Your task to perform on an android device: toggle pop-ups in chrome Image 0: 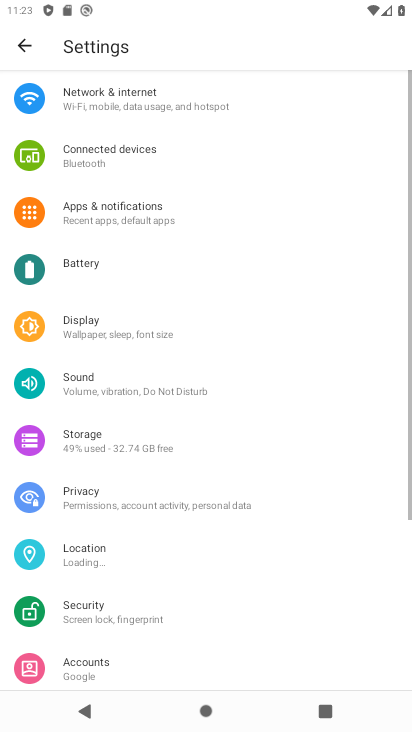
Step 0: press home button
Your task to perform on an android device: toggle pop-ups in chrome Image 1: 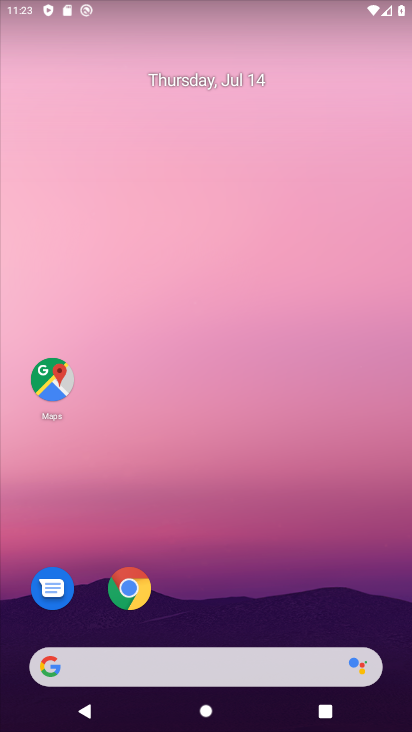
Step 1: drag from (247, 614) to (209, 223)
Your task to perform on an android device: toggle pop-ups in chrome Image 2: 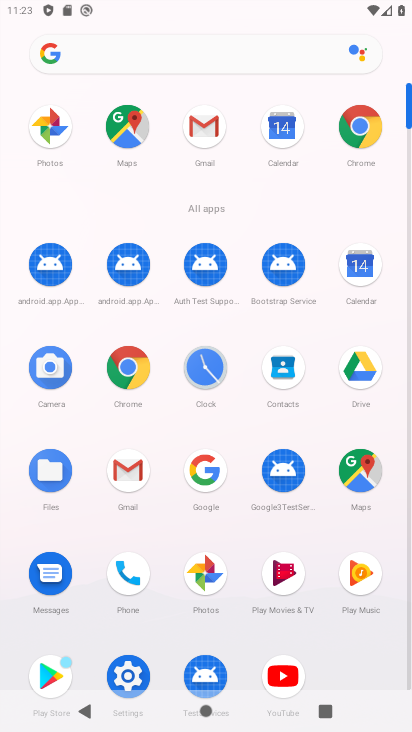
Step 2: click (359, 133)
Your task to perform on an android device: toggle pop-ups in chrome Image 3: 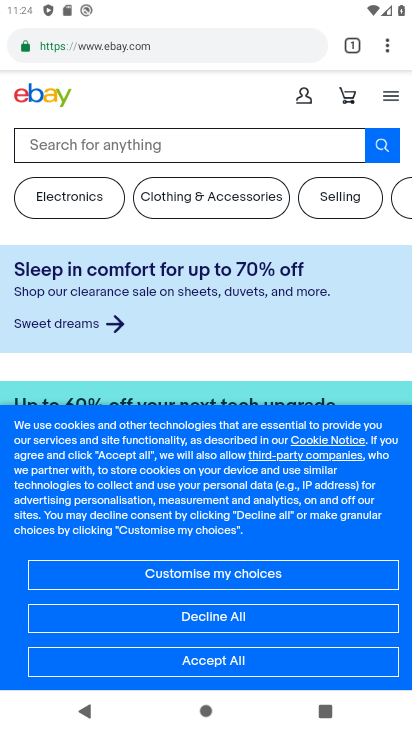
Step 3: click (393, 54)
Your task to perform on an android device: toggle pop-ups in chrome Image 4: 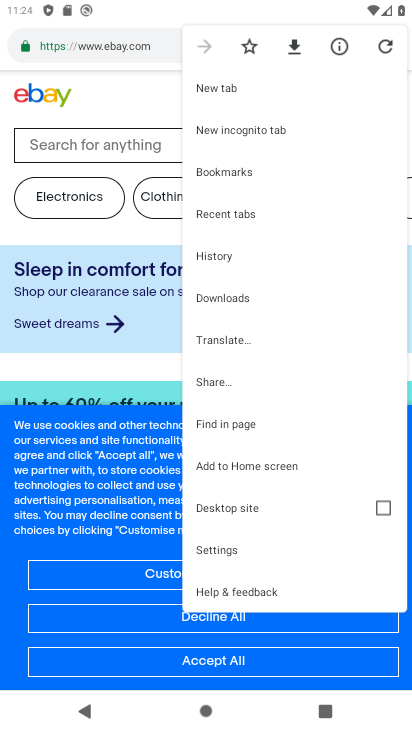
Step 4: click (271, 545)
Your task to perform on an android device: toggle pop-ups in chrome Image 5: 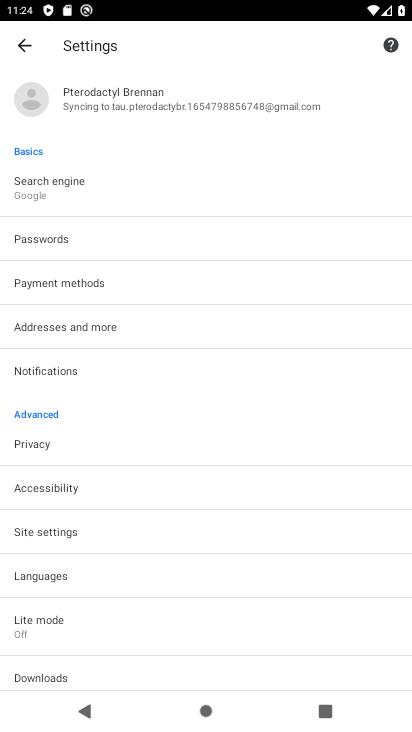
Step 5: drag from (278, 648) to (224, 397)
Your task to perform on an android device: toggle pop-ups in chrome Image 6: 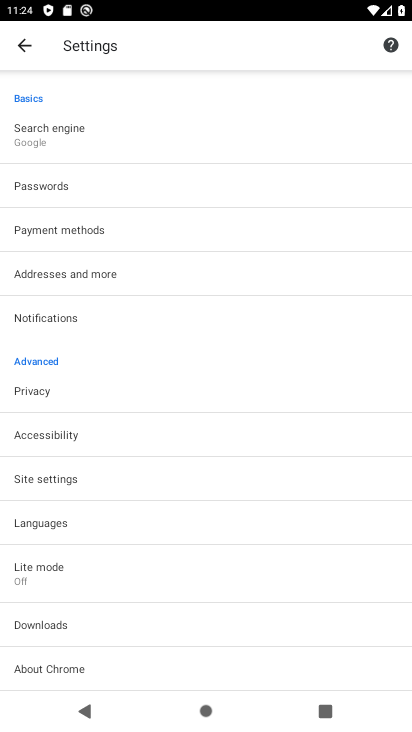
Step 6: click (150, 469)
Your task to perform on an android device: toggle pop-ups in chrome Image 7: 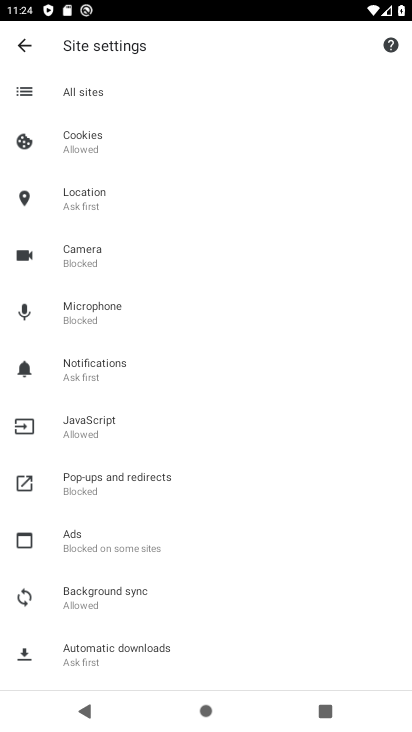
Step 7: click (140, 494)
Your task to perform on an android device: toggle pop-ups in chrome Image 8: 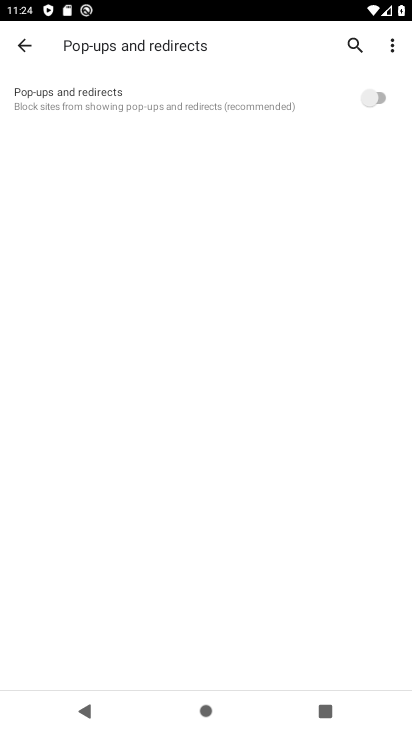
Step 8: click (370, 115)
Your task to perform on an android device: toggle pop-ups in chrome Image 9: 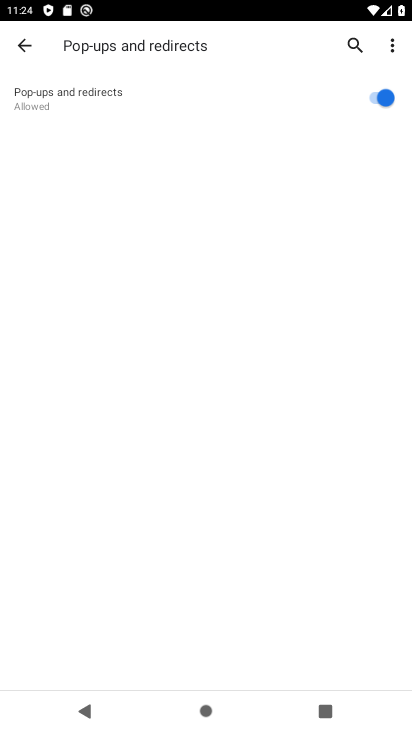
Step 9: task complete